Your task to perform on an android device: allow notifications from all sites in the chrome app Image 0: 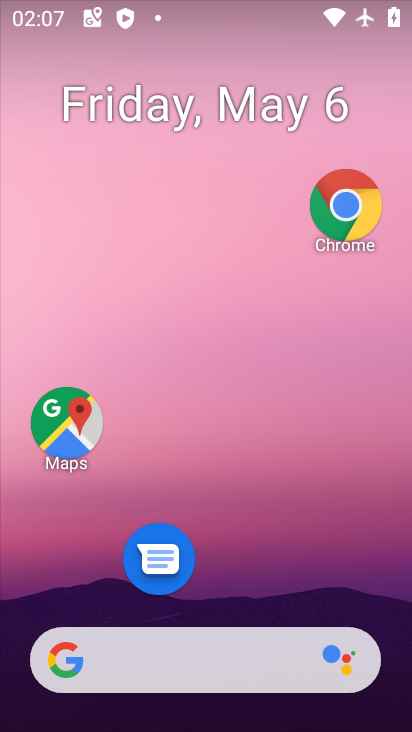
Step 0: click (351, 217)
Your task to perform on an android device: allow notifications from all sites in the chrome app Image 1: 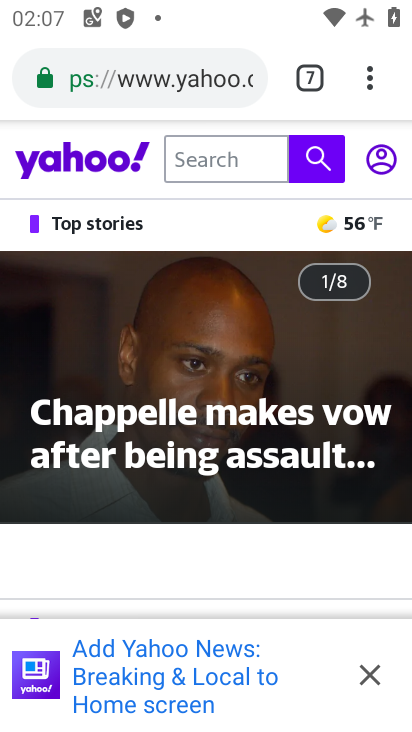
Step 1: drag from (374, 79) to (169, 615)
Your task to perform on an android device: allow notifications from all sites in the chrome app Image 2: 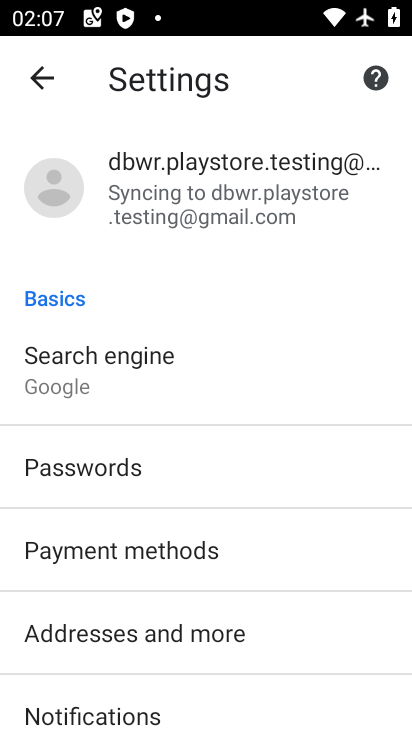
Step 2: drag from (157, 666) to (342, 276)
Your task to perform on an android device: allow notifications from all sites in the chrome app Image 3: 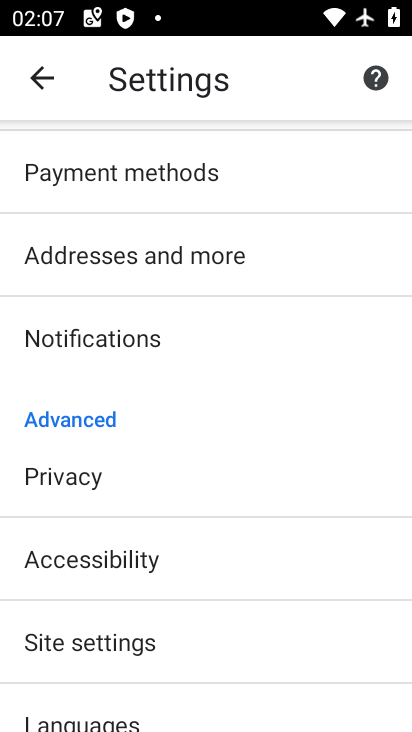
Step 3: click (145, 640)
Your task to perform on an android device: allow notifications from all sites in the chrome app Image 4: 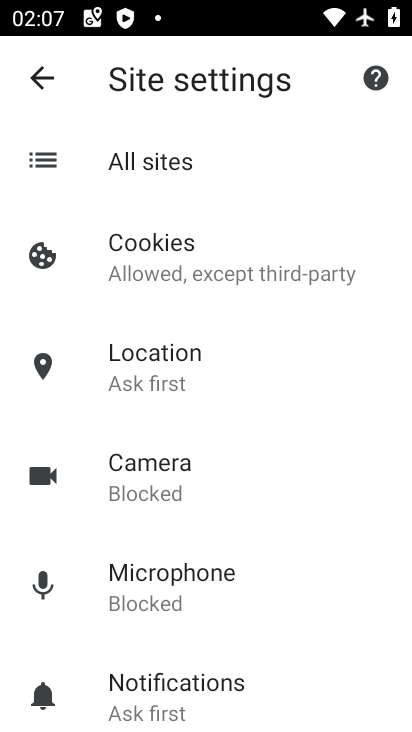
Step 4: click (177, 683)
Your task to perform on an android device: allow notifications from all sites in the chrome app Image 5: 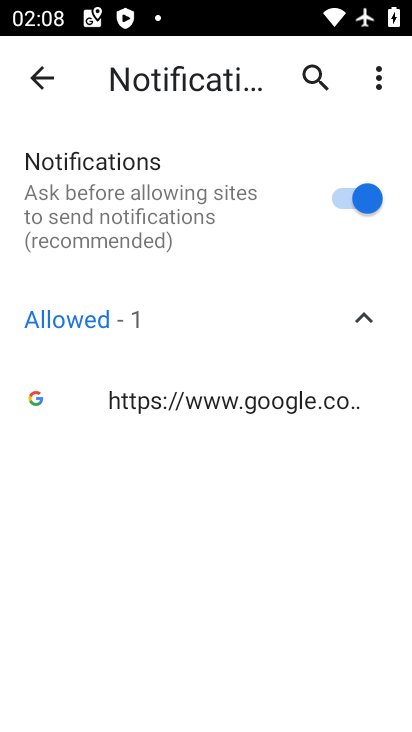
Step 5: task complete